Your task to perform on an android device: Check the weather Image 0: 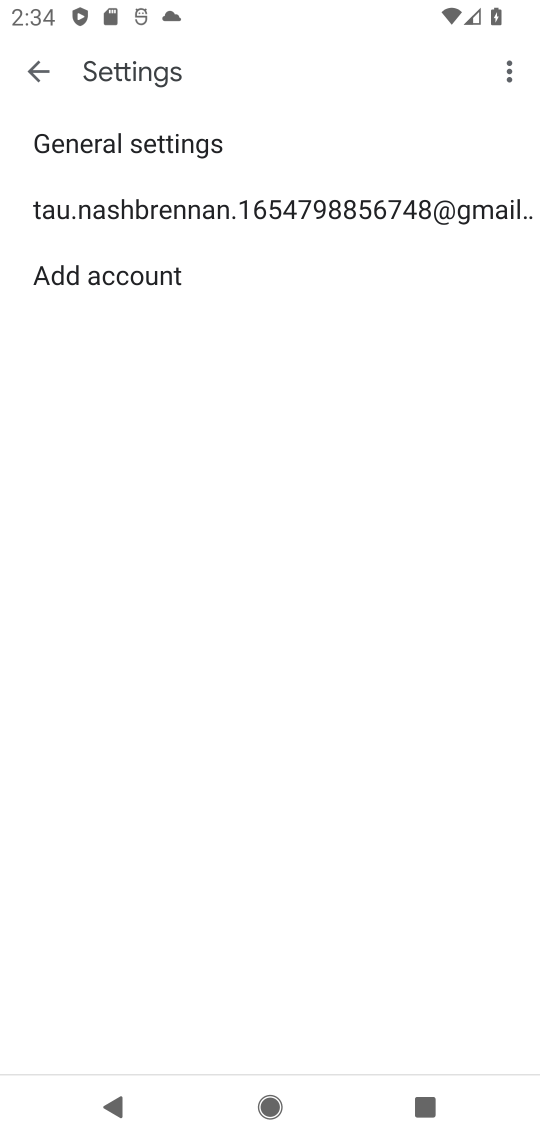
Step 0: press home button
Your task to perform on an android device: Check the weather Image 1: 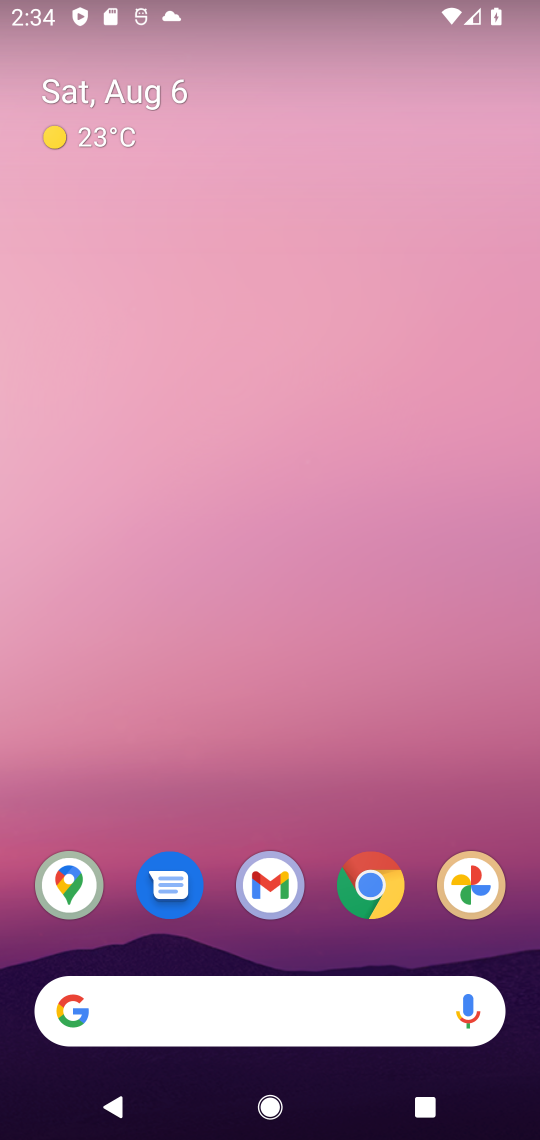
Step 1: drag from (524, 935) to (259, 37)
Your task to perform on an android device: Check the weather Image 2: 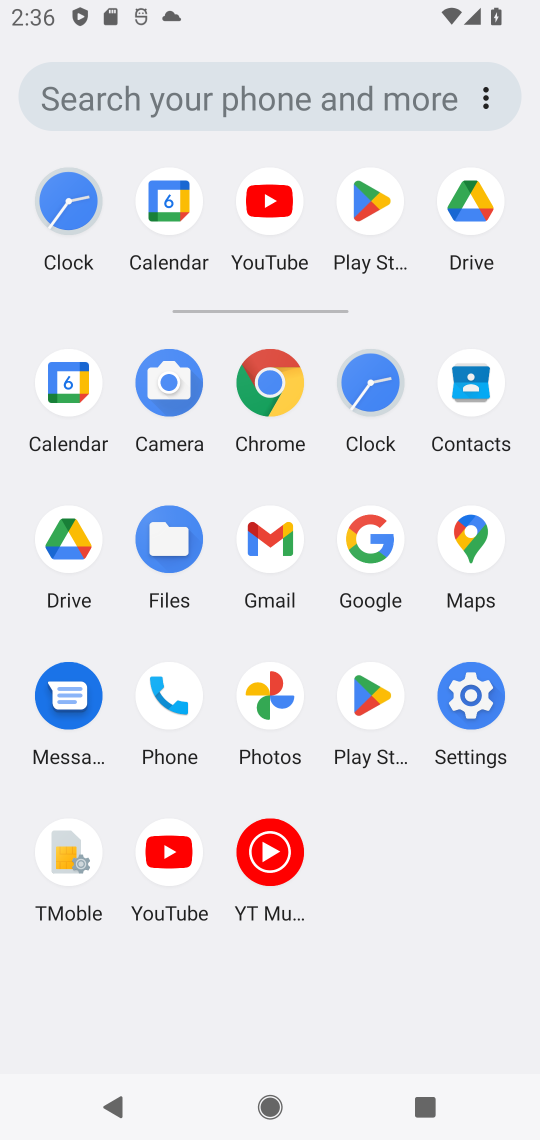
Step 2: click (379, 514)
Your task to perform on an android device: Check the weather Image 3: 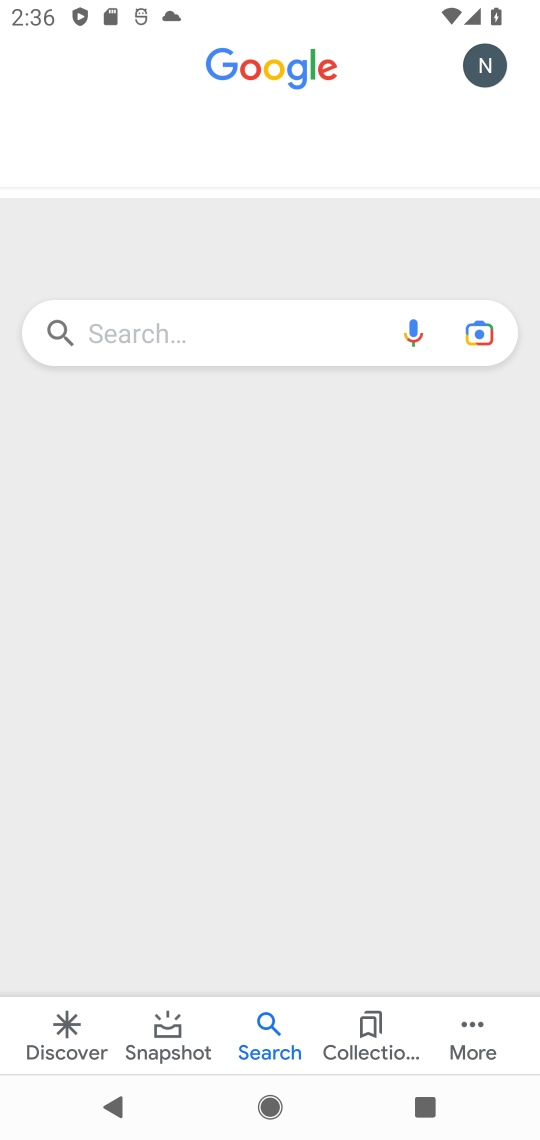
Step 3: click (158, 335)
Your task to perform on an android device: Check the weather Image 4: 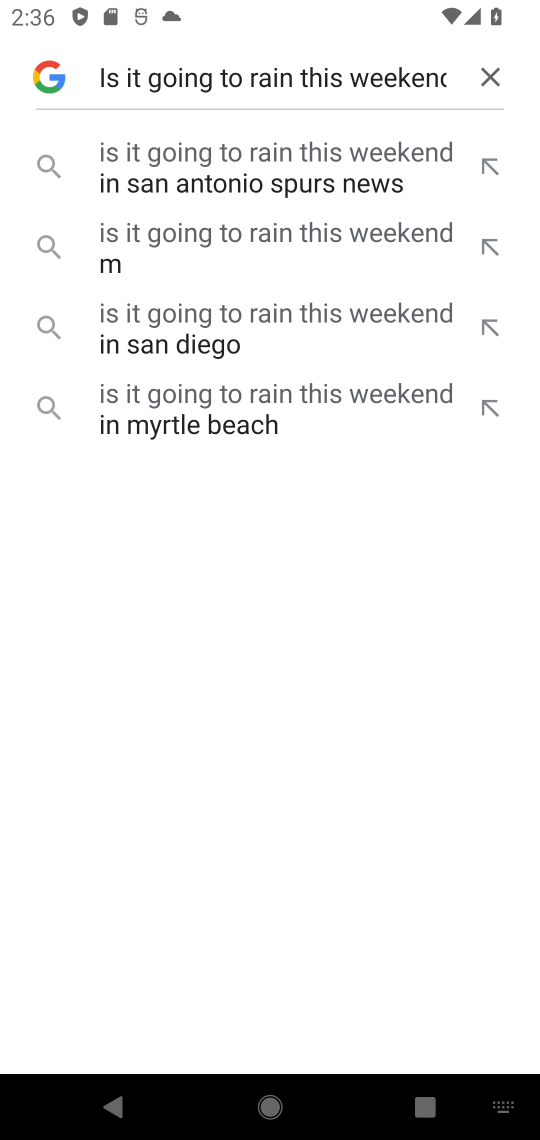
Step 4: click (487, 67)
Your task to perform on an android device: Check the weather Image 5: 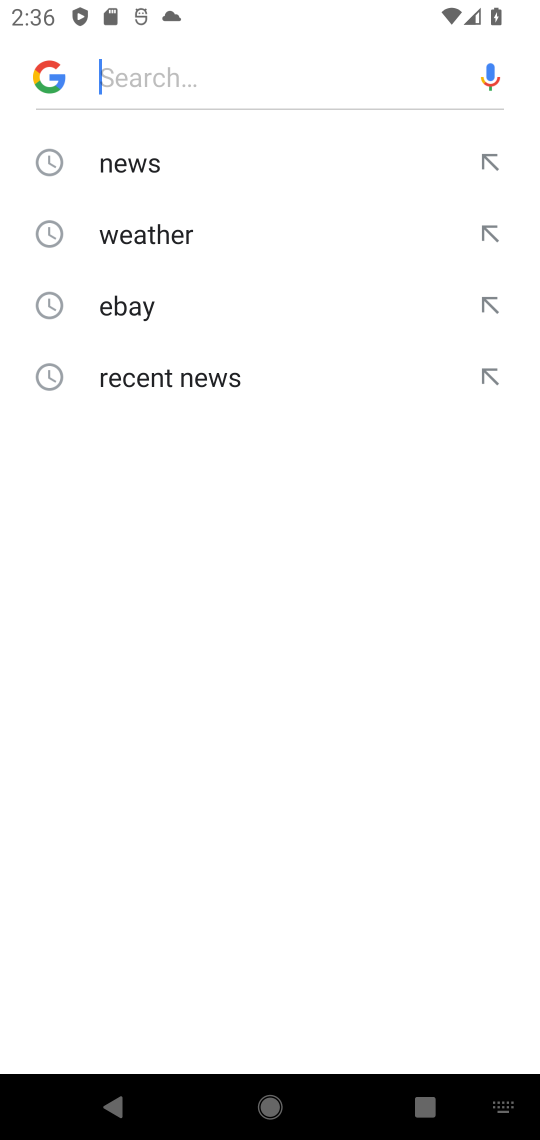
Step 5: click (159, 235)
Your task to perform on an android device: Check the weather Image 6: 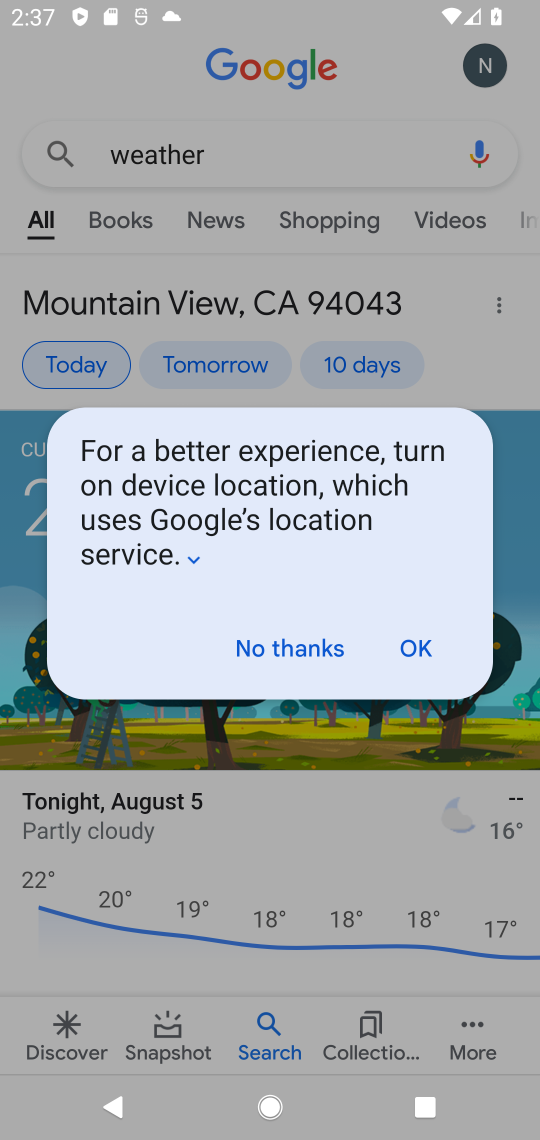
Step 6: click (408, 651)
Your task to perform on an android device: Check the weather Image 7: 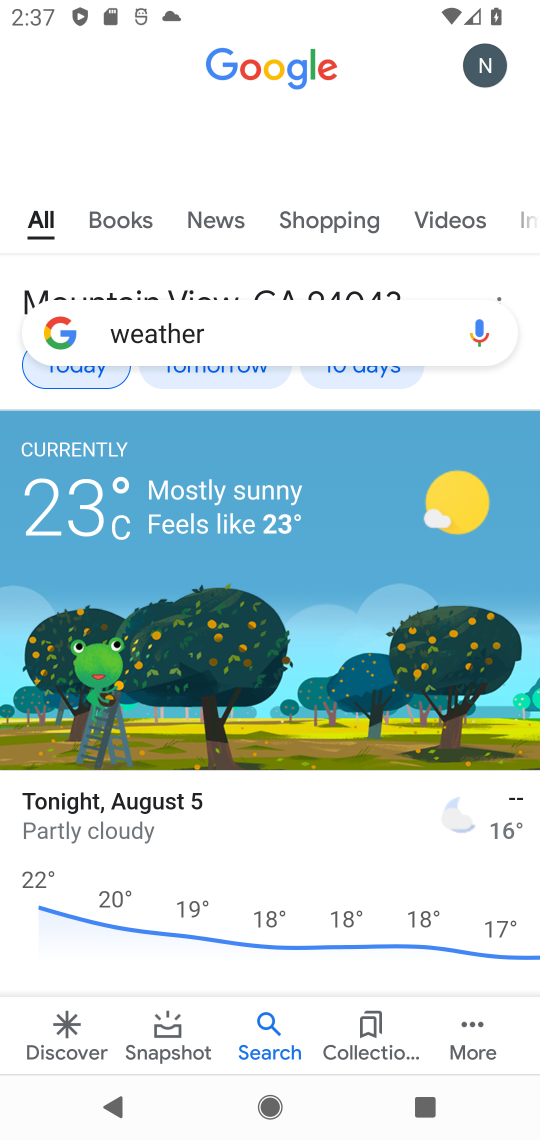
Step 7: task complete